Your task to perform on an android device: open device folders in google photos Image 0: 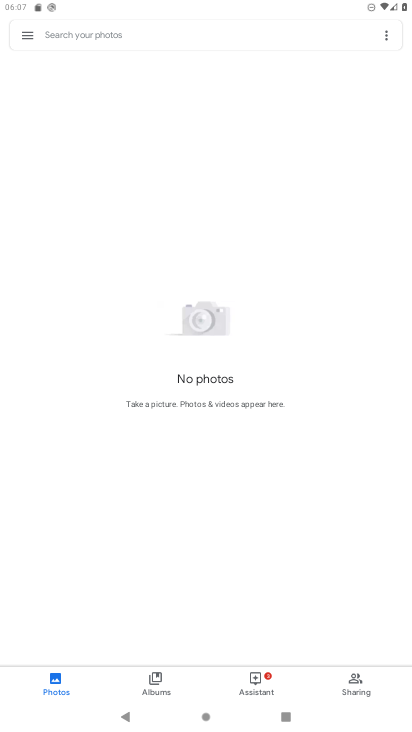
Step 0: press home button
Your task to perform on an android device: open device folders in google photos Image 1: 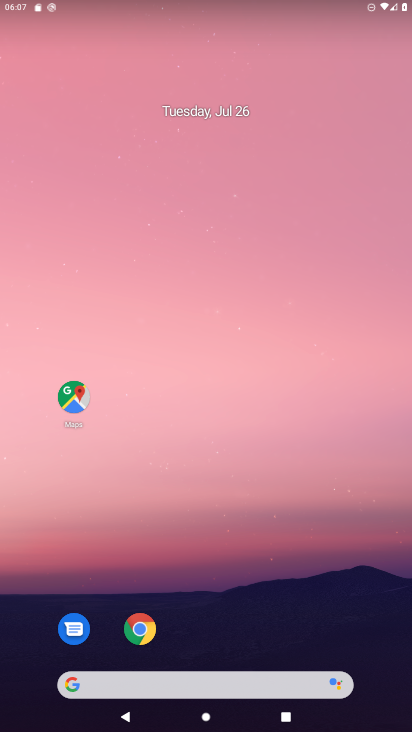
Step 1: drag from (203, 590) to (267, 134)
Your task to perform on an android device: open device folders in google photos Image 2: 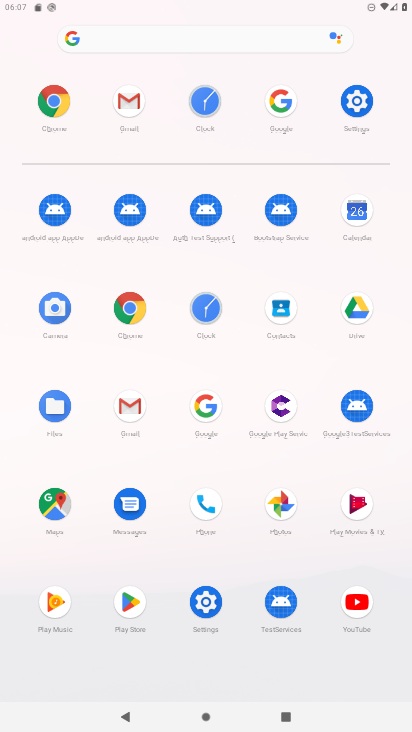
Step 2: click (269, 512)
Your task to perform on an android device: open device folders in google photos Image 3: 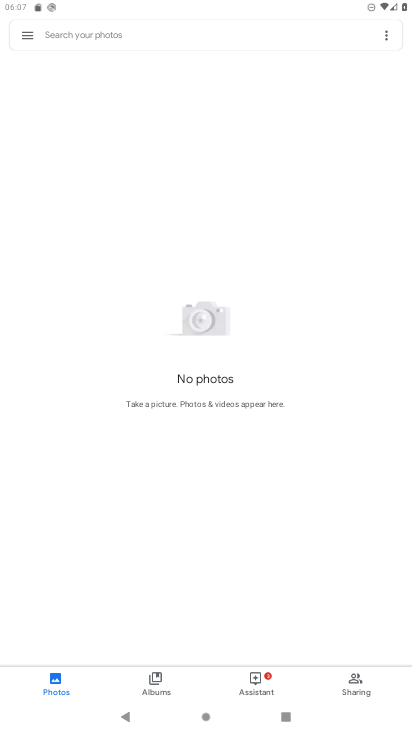
Step 3: click (20, 32)
Your task to perform on an android device: open device folders in google photos Image 4: 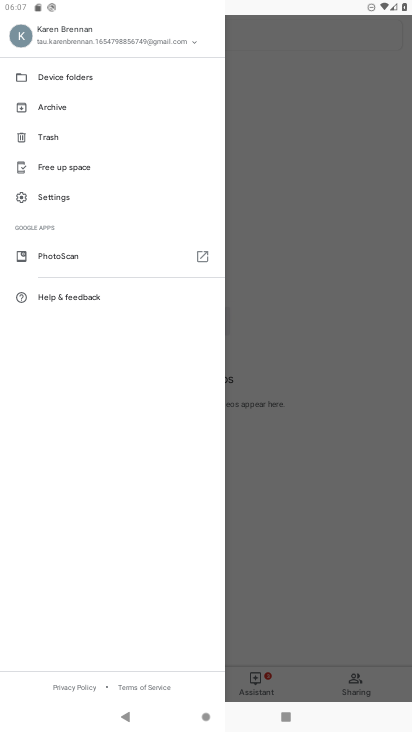
Step 4: click (47, 77)
Your task to perform on an android device: open device folders in google photos Image 5: 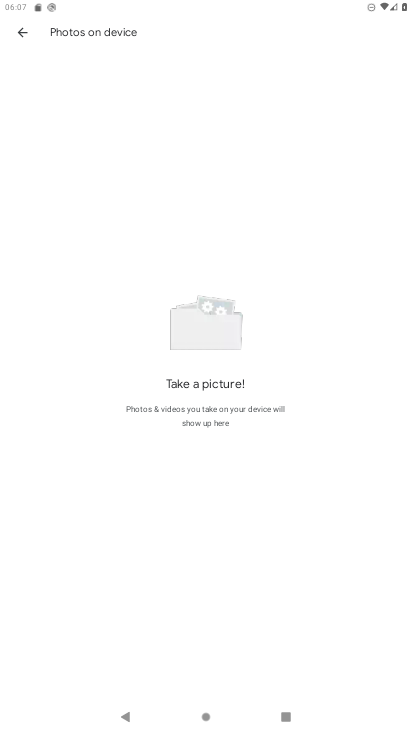
Step 5: task complete